Your task to perform on an android device: check battery use Image 0: 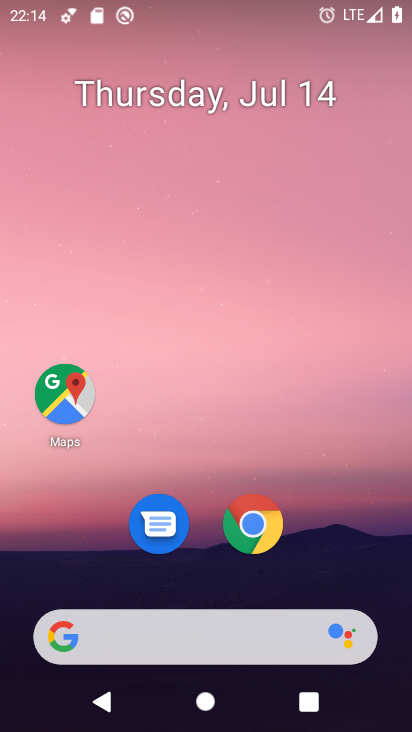
Step 0: drag from (215, 439) to (262, 0)
Your task to perform on an android device: check battery use Image 1: 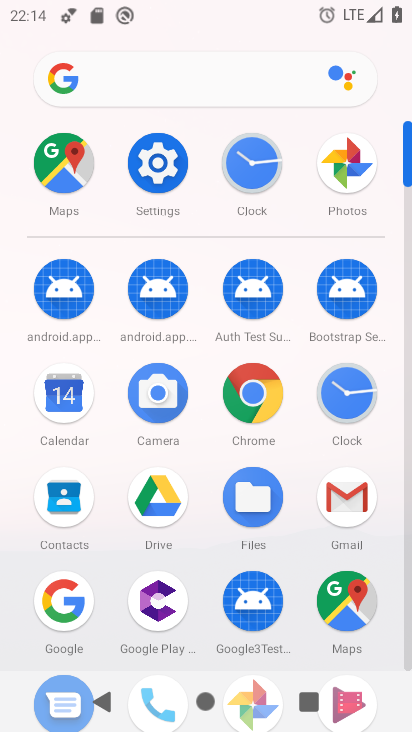
Step 1: click (161, 166)
Your task to perform on an android device: check battery use Image 2: 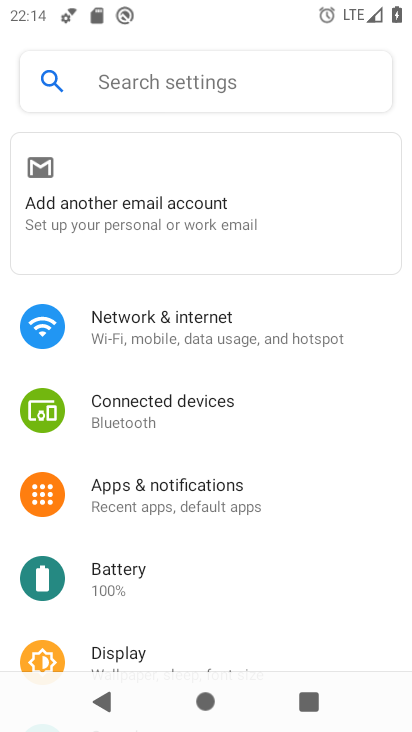
Step 2: click (134, 572)
Your task to perform on an android device: check battery use Image 3: 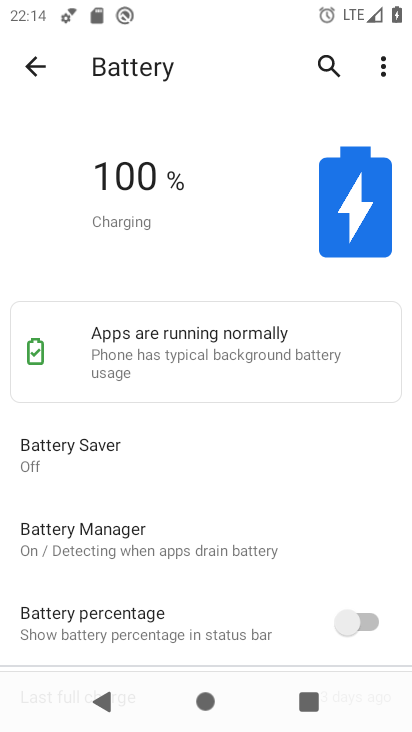
Step 3: click (383, 60)
Your task to perform on an android device: check battery use Image 4: 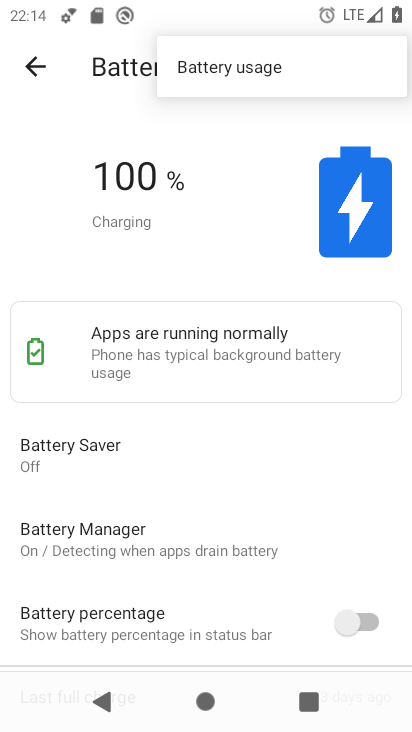
Step 4: click (265, 71)
Your task to perform on an android device: check battery use Image 5: 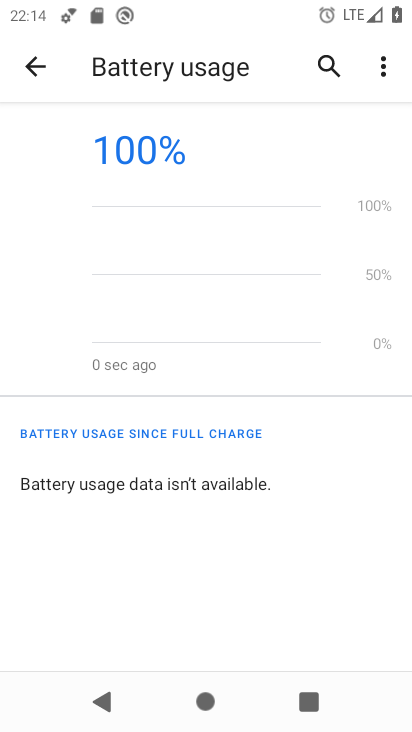
Step 5: task complete